Your task to perform on an android device: create a new album in the google photos Image 0: 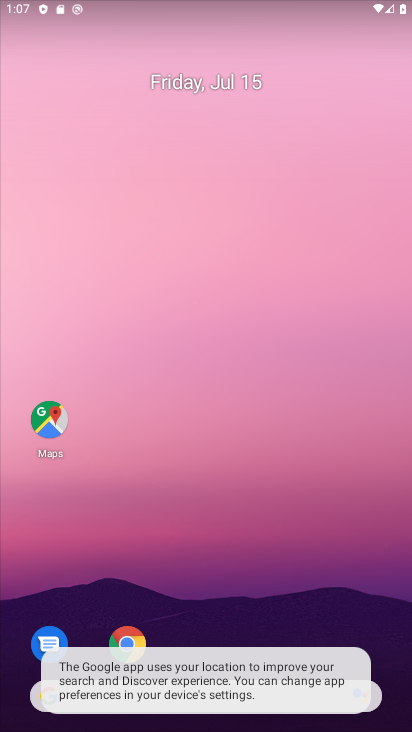
Step 0: drag from (389, 592) to (347, 127)
Your task to perform on an android device: create a new album in the google photos Image 1: 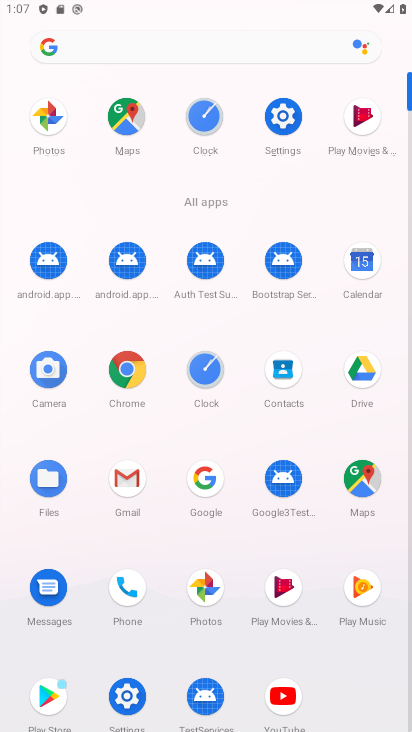
Step 1: click (199, 582)
Your task to perform on an android device: create a new album in the google photos Image 2: 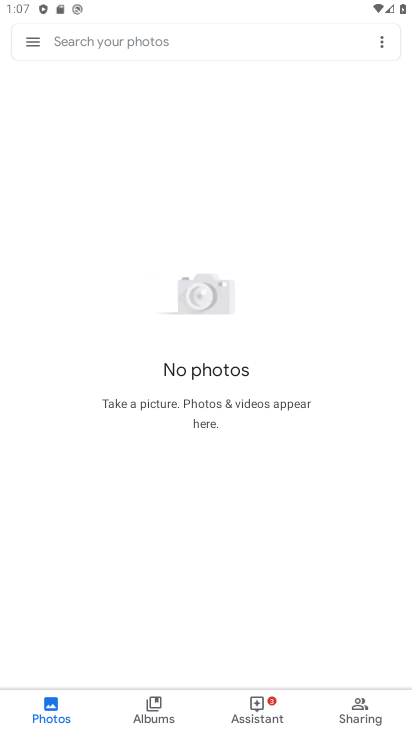
Step 2: click (381, 40)
Your task to perform on an android device: create a new album in the google photos Image 3: 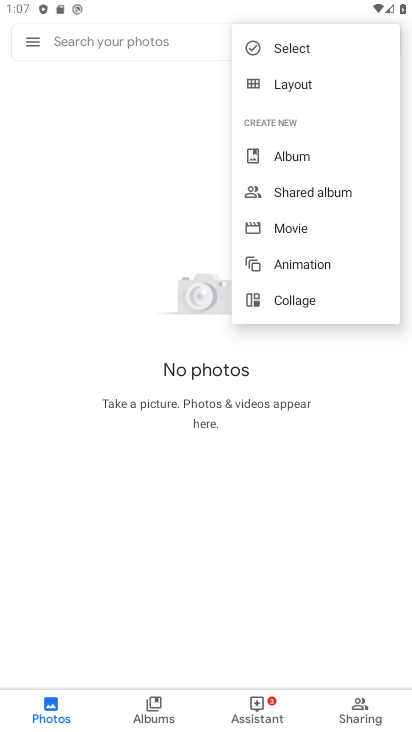
Step 3: click (295, 154)
Your task to perform on an android device: create a new album in the google photos Image 4: 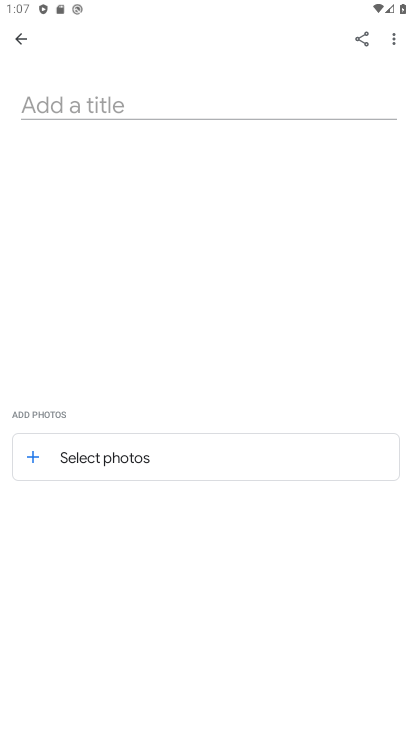
Step 4: click (160, 106)
Your task to perform on an android device: create a new album in the google photos Image 5: 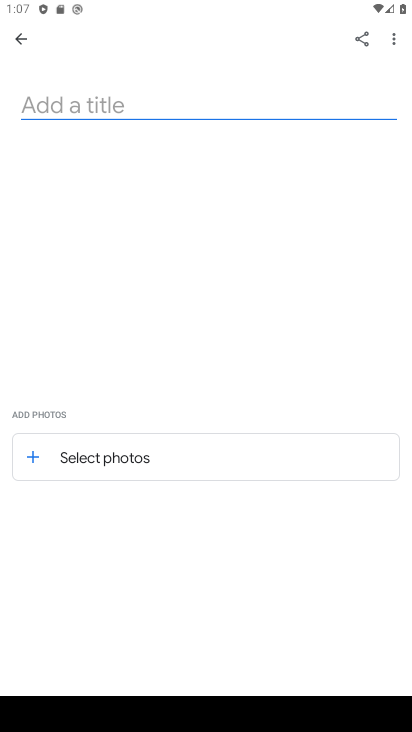
Step 5: type "ftf5ftyftyft"
Your task to perform on an android device: create a new album in the google photos Image 6: 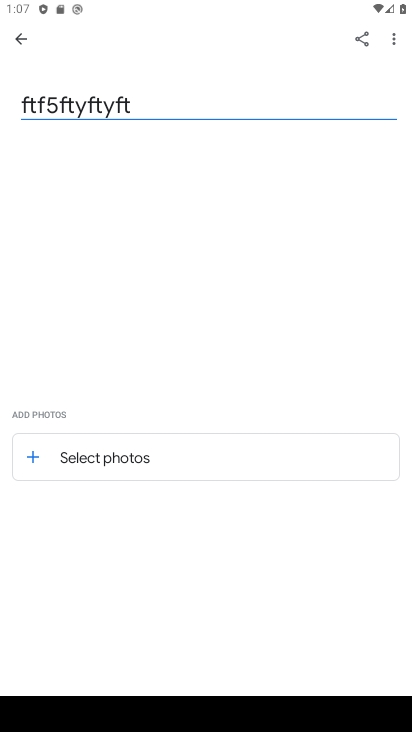
Step 6: click (199, 452)
Your task to perform on an android device: create a new album in the google photos Image 7: 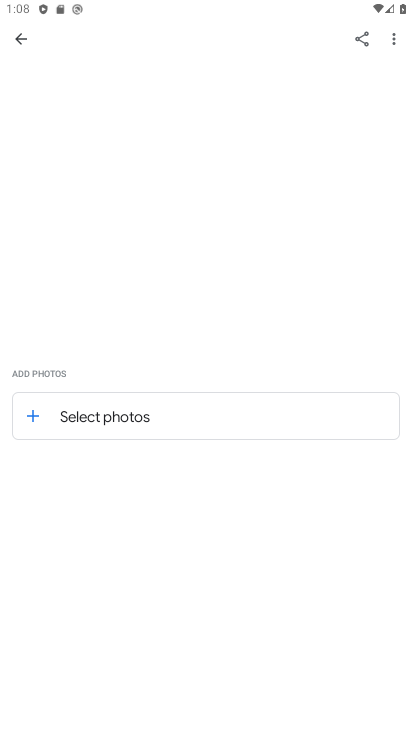
Step 7: task complete